Your task to perform on an android device: make emails show in primary in the gmail app Image 0: 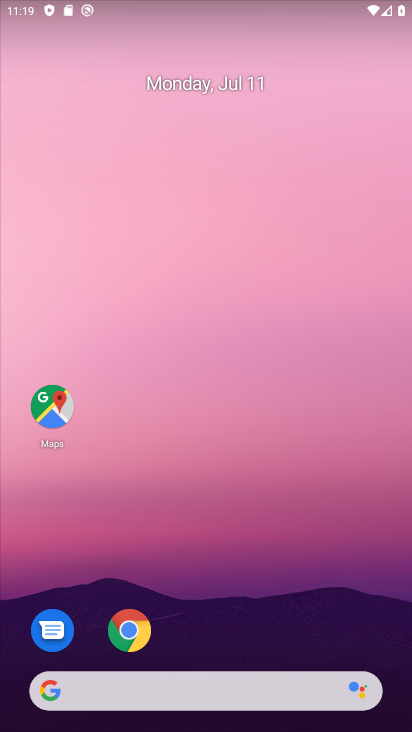
Step 0: drag from (258, 637) to (275, 138)
Your task to perform on an android device: make emails show in primary in the gmail app Image 1: 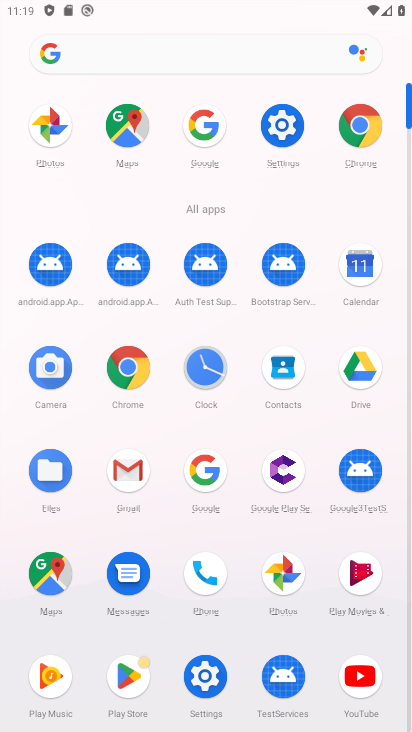
Step 1: click (127, 476)
Your task to perform on an android device: make emails show in primary in the gmail app Image 2: 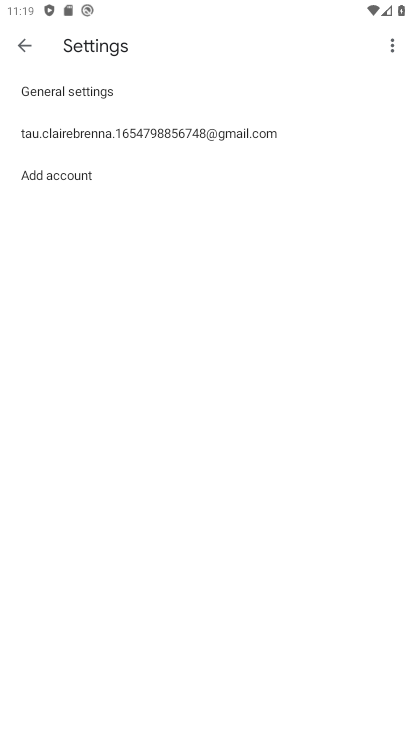
Step 2: click (55, 131)
Your task to perform on an android device: make emails show in primary in the gmail app Image 3: 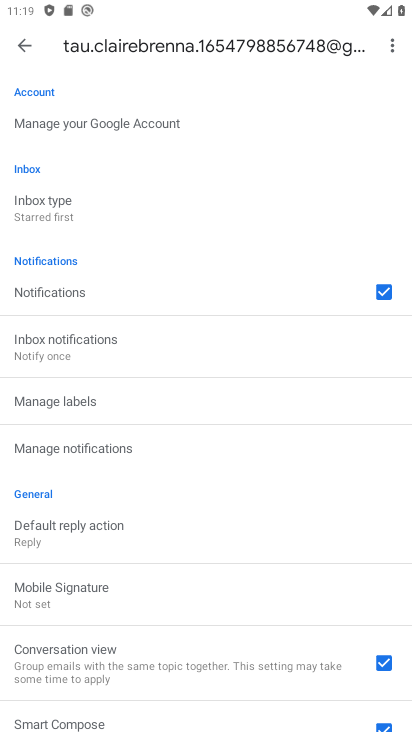
Step 3: drag from (303, 219) to (4, 214)
Your task to perform on an android device: make emails show in primary in the gmail app Image 4: 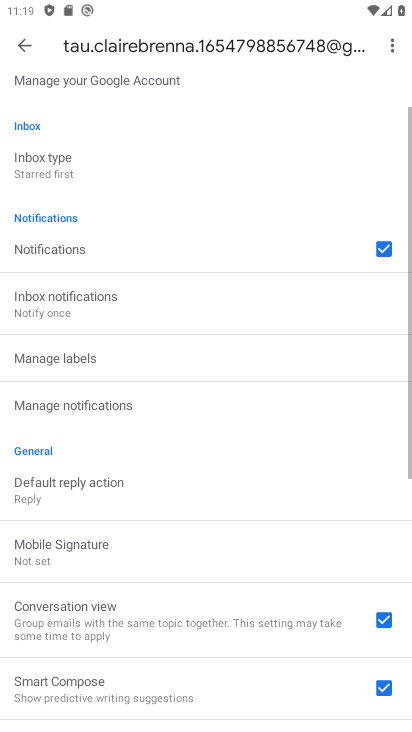
Step 4: drag from (76, 161) to (114, 435)
Your task to perform on an android device: make emails show in primary in the gmail app Image 5: 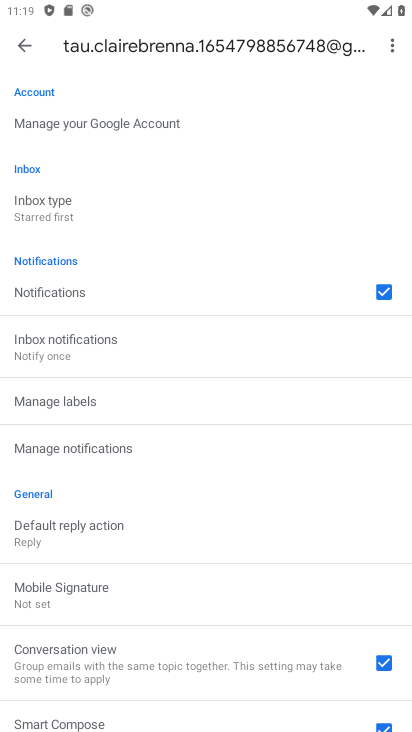
Step 5: drag from (74, 150) to (83, 393)
Your task to perform on an android device: make emails show in primary in the gmail app Image 6: 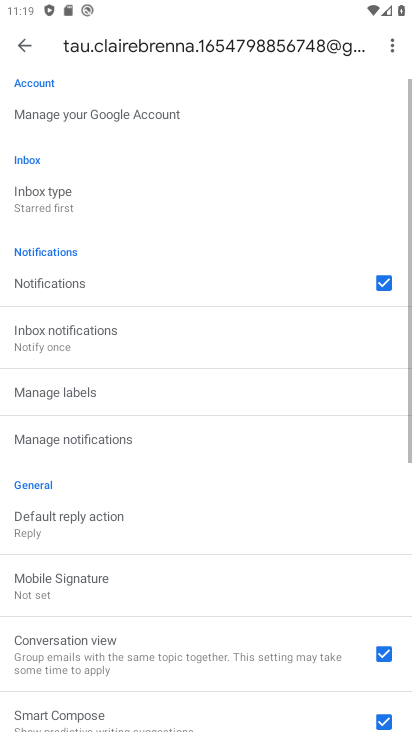
Step 6: click (60, 205)
Your task to perform on an android device: make emails show in primary in the gmail app Image 7: 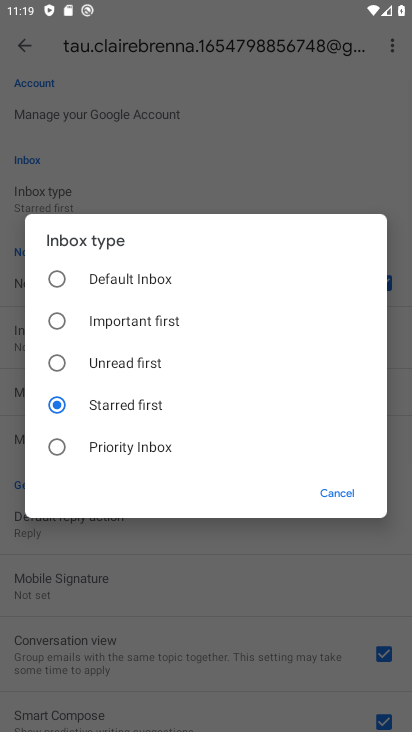
Step 7: click (53, 277)
Your task to perform on an android device: make emails show in primary in the gmail app Image 8: 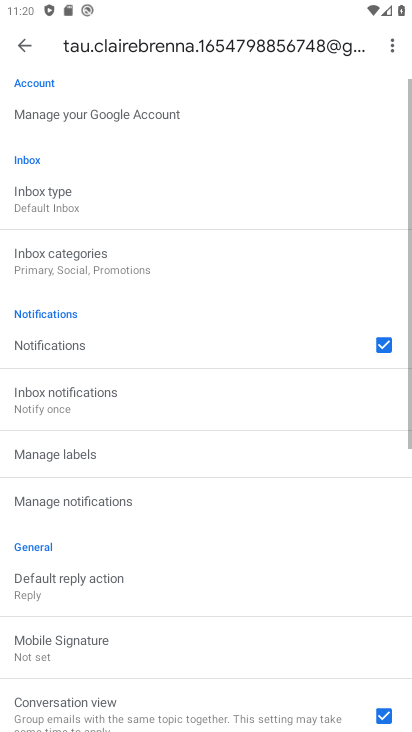
Step 8: click (63, 261)
Your task to perform on an android device: make emails show in primary in the gmail app Image 9: 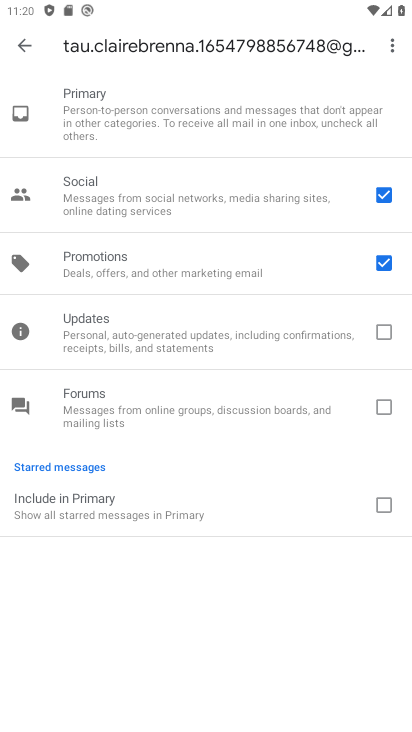
Step 9: click (377, 264)
Your task to perform on an android device: make emails show in primary in the gmail app Image 10: 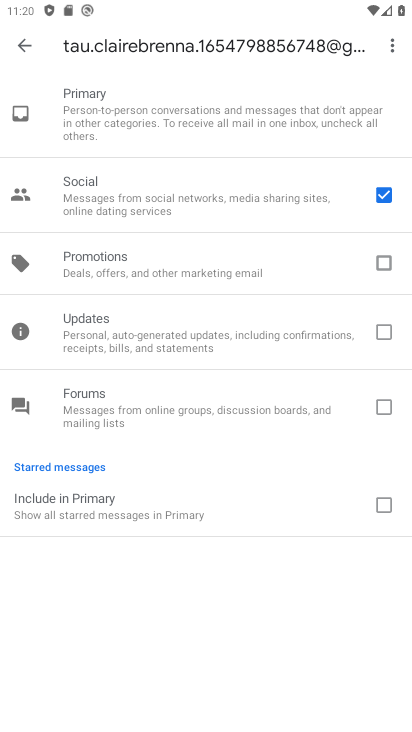
Step 10: click (383, 201)
Your task to perform on an android device: make emails show in primary in the gmail app Image 11: 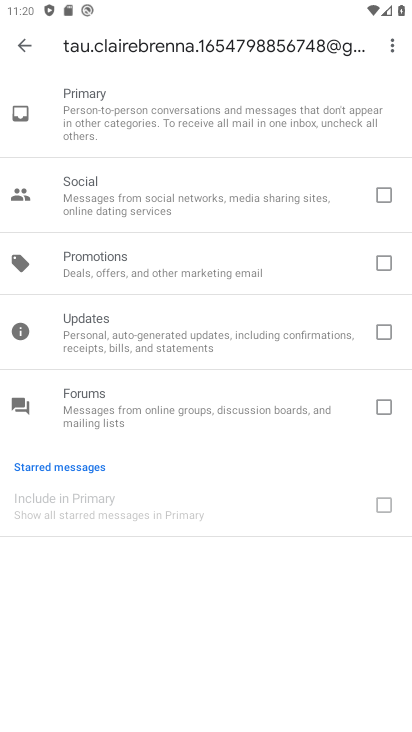
Step 11: task complete